Your task to perform on an android device: open sync settings in chrome Image 0: 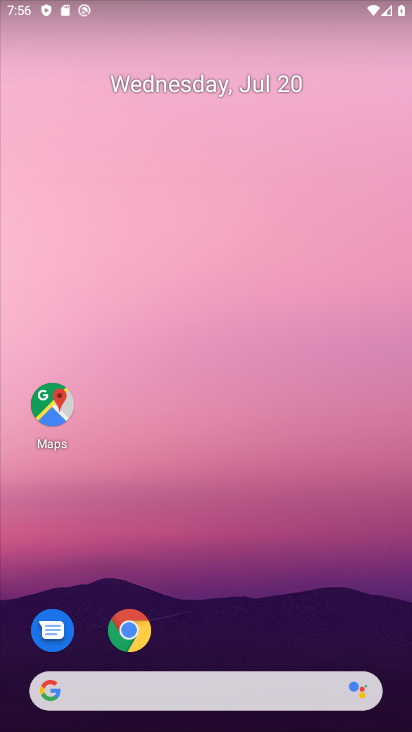
Step 0: click (130, 621)
Your task to perform on an android device: open sync settings in chrome Image 1: 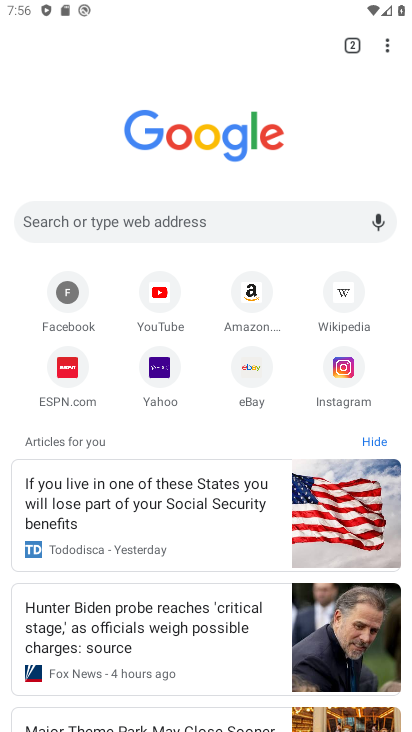
Step 1: click (387, 43)
Your task to perform on an android device: open sync settings in chrome Image 2: 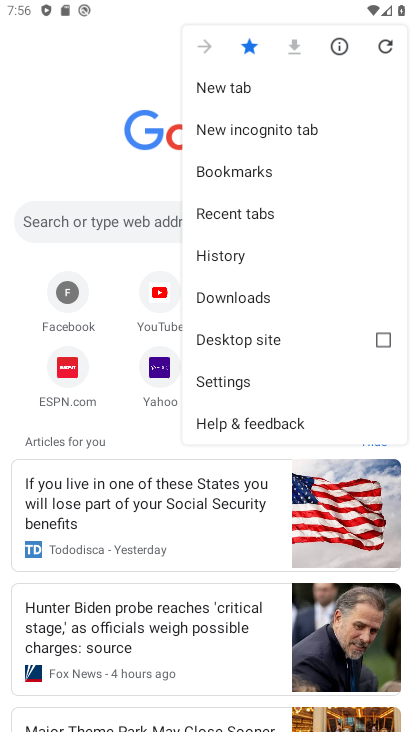
Step 2: click (233, 377)
Your task to perform on an android device: open sync settings in chrome Image 3: 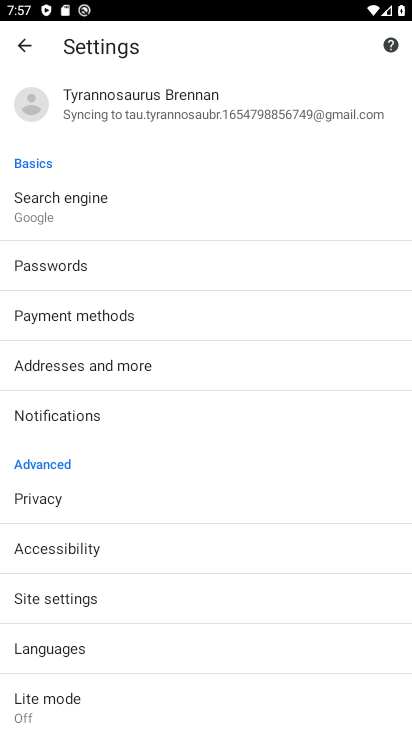
Step 3: click (40, 599)
Your task to perform on an android device: open sync settings in chrome Image 4: 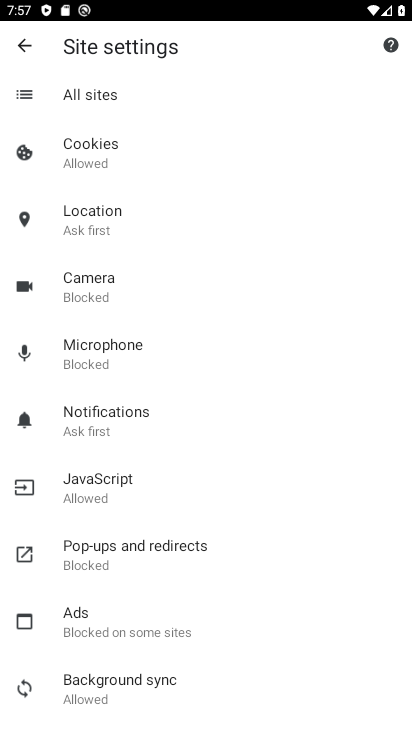
Step 4: click (136, 680)
Your task to perform on an android device: open sync settings in chrome Image 5: 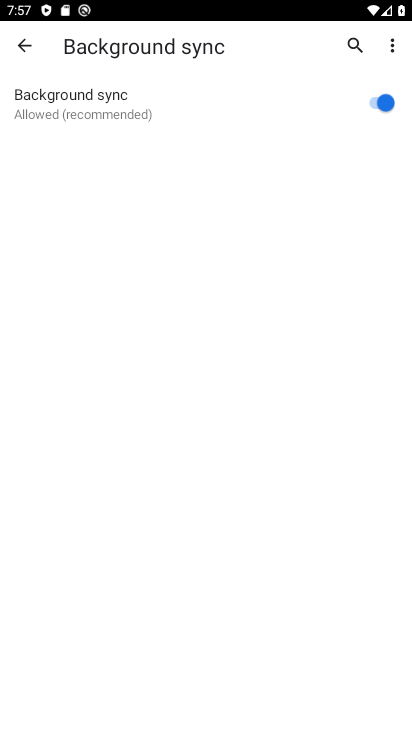
Step 5: task complete